Your task to perform on an android device: Open Android settings Image 0: 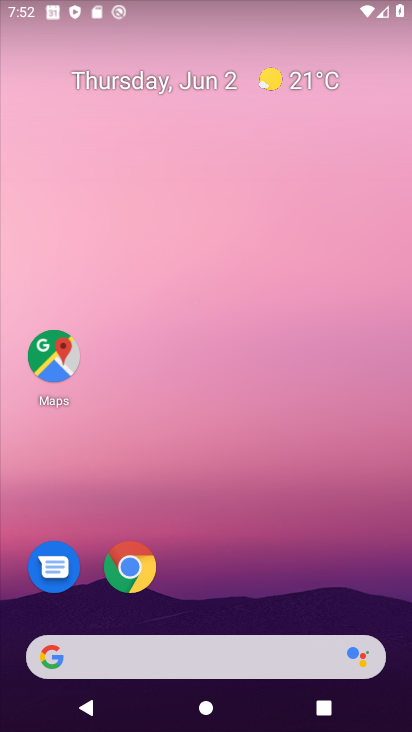
Step 0: drag from (387, 619) to (267, 82)
Your task to perform on an android device: Open Android settings Image 1: 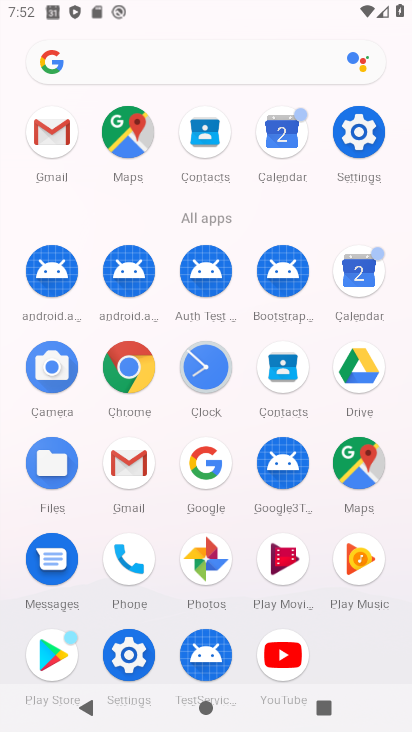
Step 1: click (129, 656)
Your task to perform on an android device: Open Android settings Image 2: 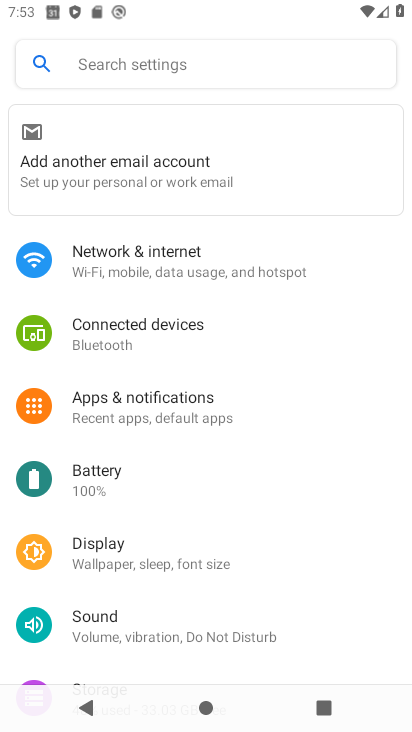
Step 2: drag from (282, 628) to (319, 225)
Your task to perform on an android device: Open Android settings Image 3: 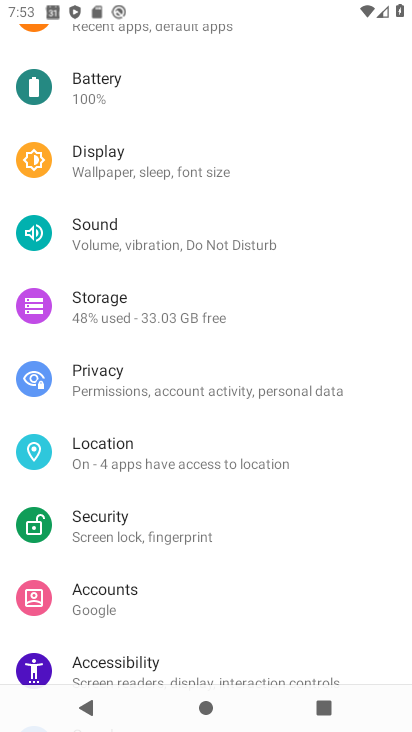
Step 3: drag from (258, 660) to (289, 192)
Your task to perform on an android device: Open Android settings Image 4: 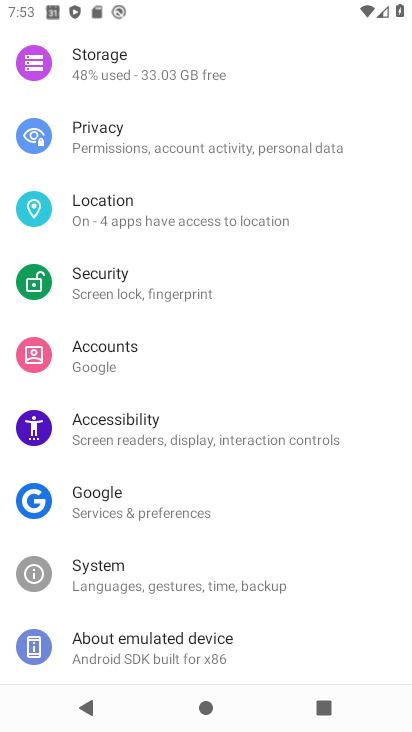
Step 4: click (129, 643)
Your task to perform on an android device: Open Android settings Image 5: 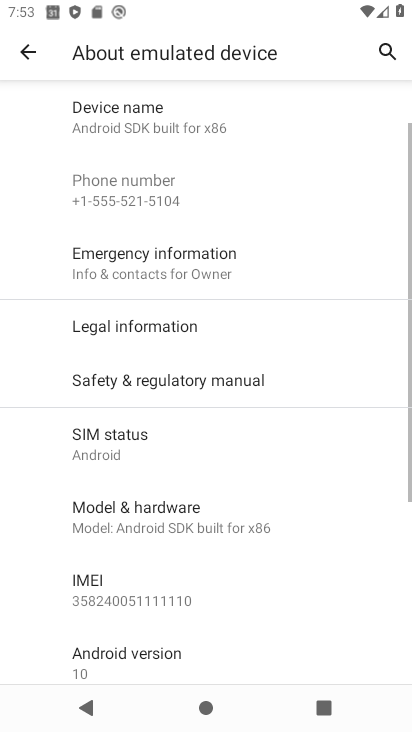
Step 5: task complete